Your task to perform on an android device: find snoozed emails in the gmail app Image 0: 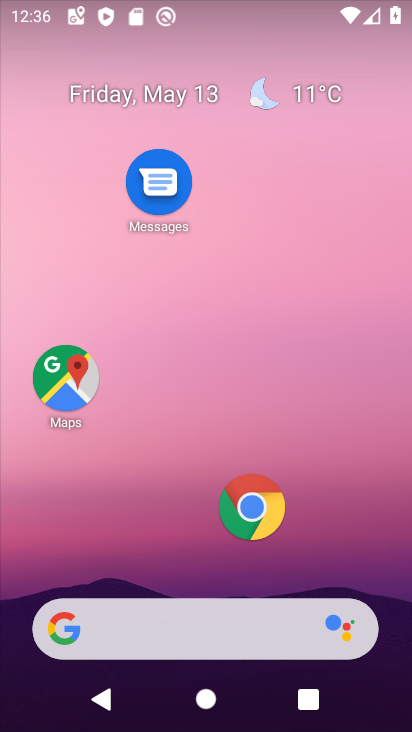
Step 0: drag from (189, 574) to (237, 3)
Your task to perform on an android device: find snoozed emails in the gmail app Image 1: 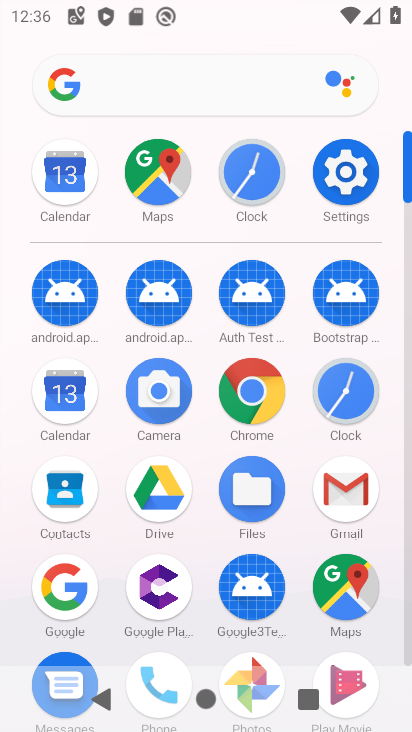
Step 1: click (358, 490)
Your task to perform on an android device: find snoozed emails in the gmail app Image 2: 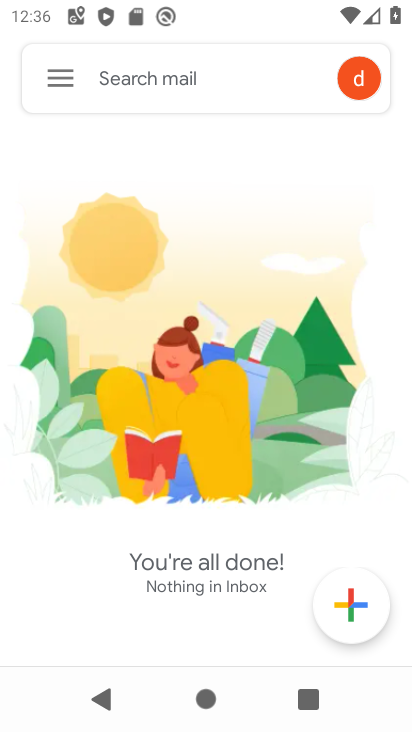
Step 2: click (33, 76)
Your task to perform on an android device: find snoozed emails in the gmail app Image 3: 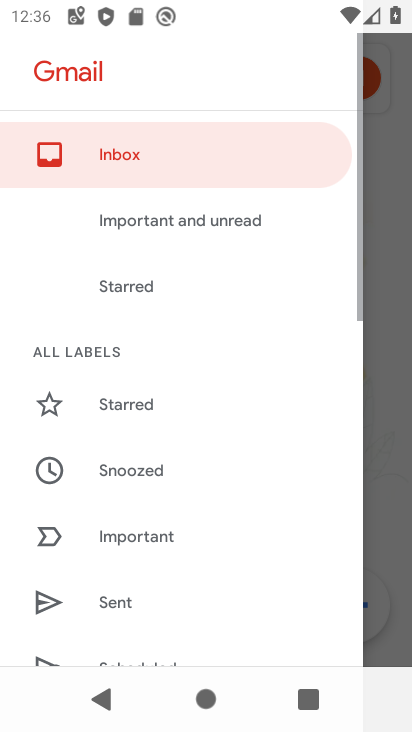
Step 3: click (108, 483)
Your task to perform on an android device: find snoozed emails in the gmail app Image 4: 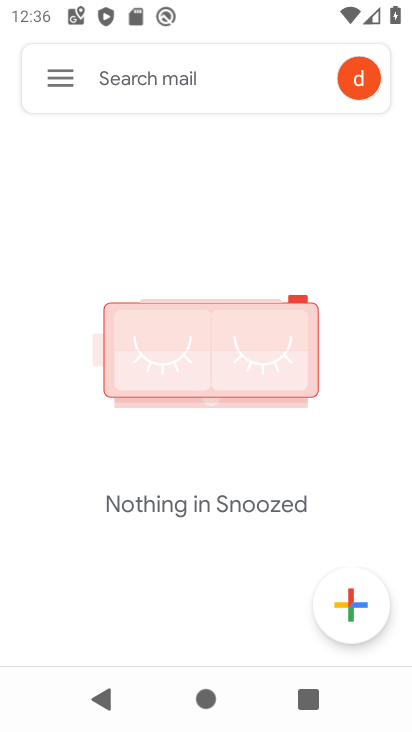
Step 4: task complete